Your task to perform on an android device: open app "Google Docs" Image 0: 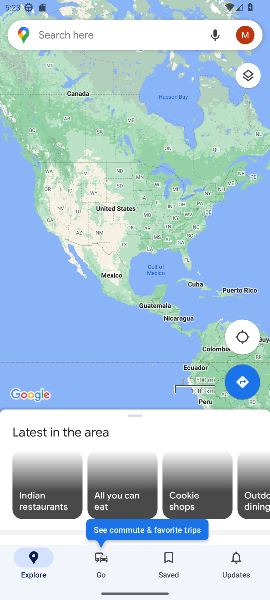
Step 0: press home button
Your task to perform on an android device: open app "Google Docs" Image 1: 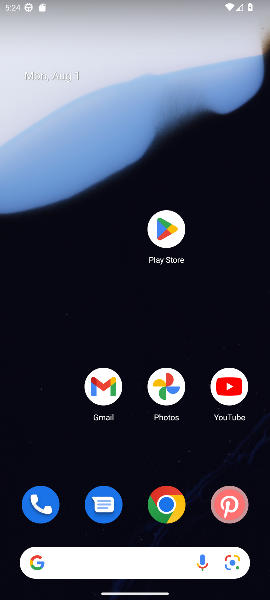
Step 1: click (159, 229)
Your task to perform on an android device: open app "Google Docs" Image 2: 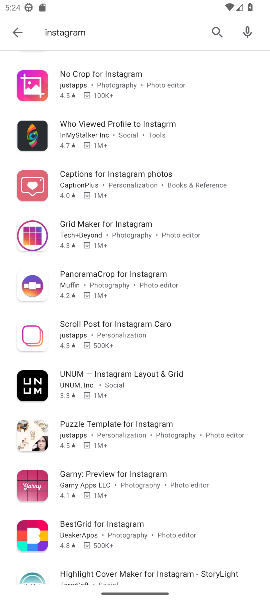
Step 2: click (218, 29)
Your task to perform on an android device: open app "Google Docs" Image 3: 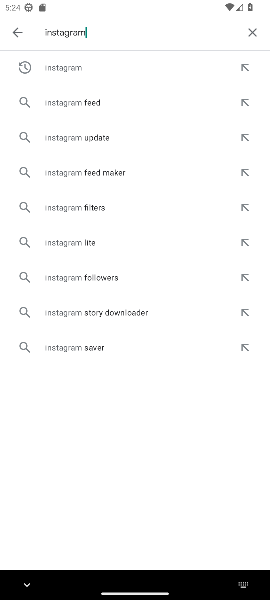
Step 3: click (248, 31)
Your task to perform on an android device: open app "Google Docs" Image 4: 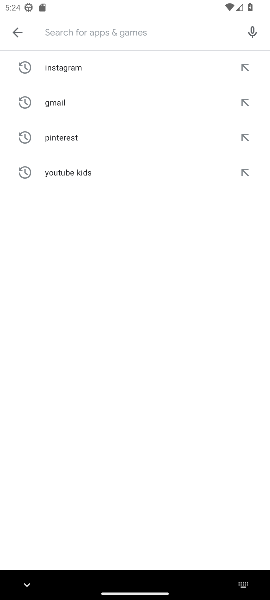
Step 4: type "Google Docs"
Your task to perform on an android device: open app "Google Docs" Image 5: 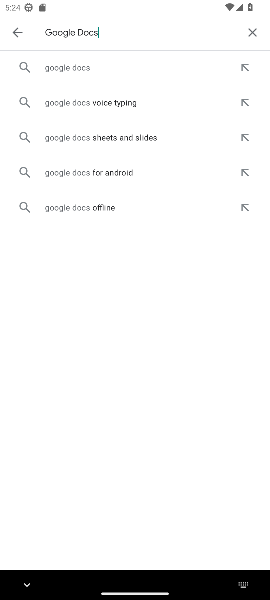
Step 5: click (88, 66)
Your task to perform on an android device: open app "Google Docs" Image 6: 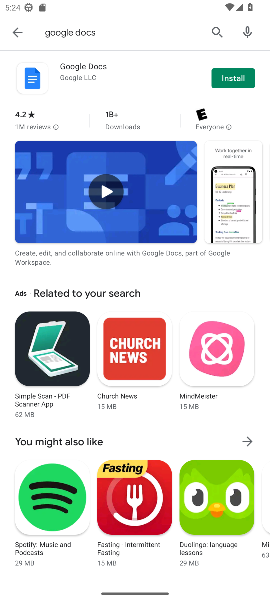
Step 6: task complete